Your task to perform on an android device: change alarm snooze length Image 0: 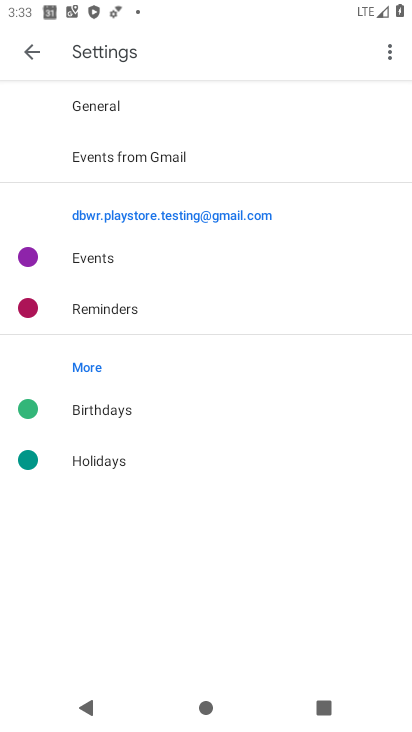
Step 0: press back button
Your task to perform on an android device: change alarm snooze length Image 1: 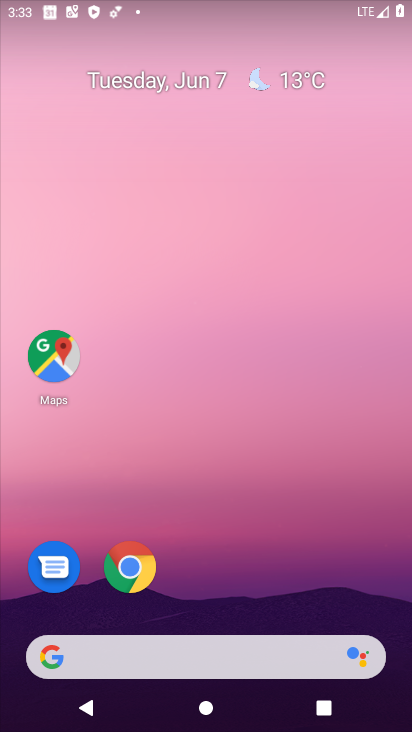
Step 1: drag from (264, 541) to (358, 63)
Your task to perform on an android device: change alarm snooze length Image 2: 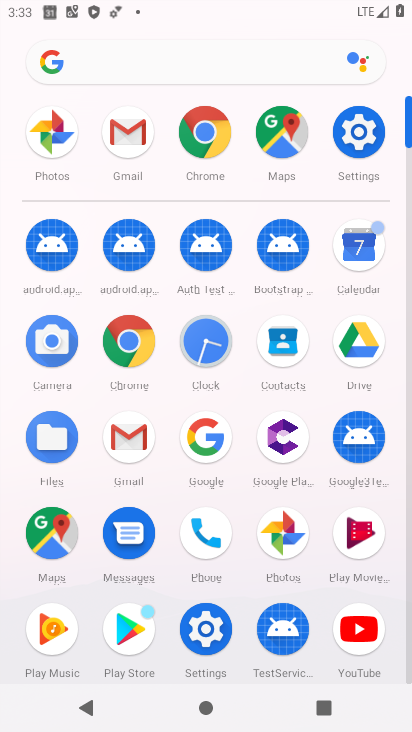
Step 2: click (193, 333)
Your task to perform on an android device: change alarm snooze length Image 3: 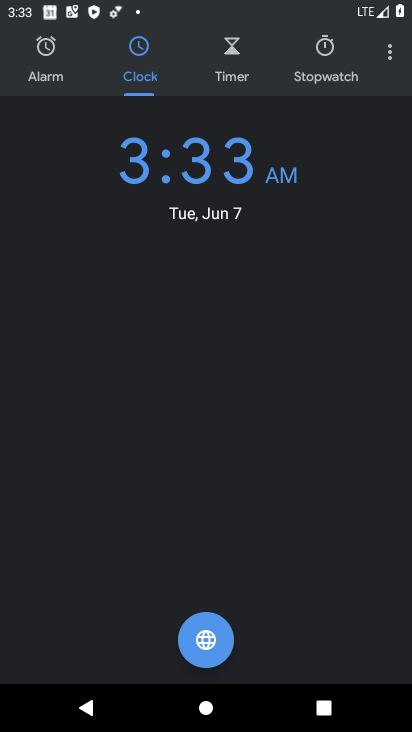
Step 3: click (394, 53)
Your task to perform on an android device: change alarm snooze length Image 4: 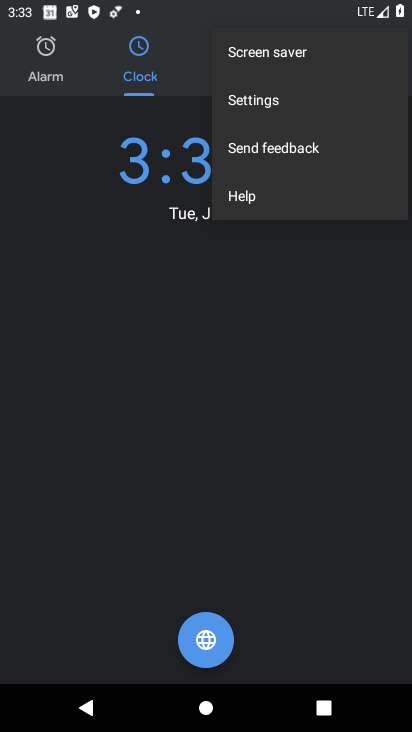
Step 4: click (264, 99)
Your task to perform on an android device: change alarm snooze length Image 5: 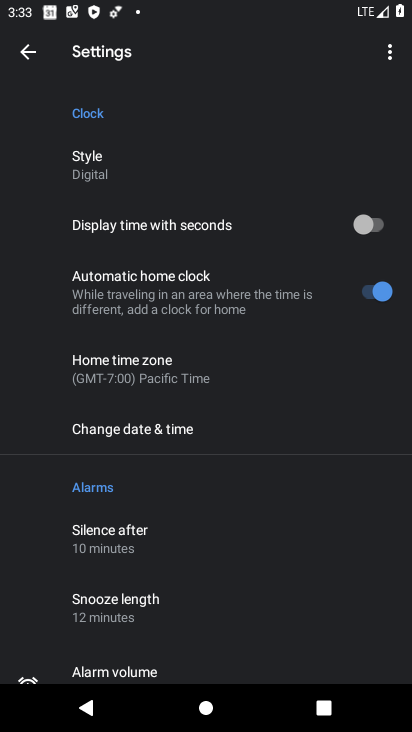
Step 5: click (162, 606)
Your task to perform on an android device: change alarm snooze length Image 6: 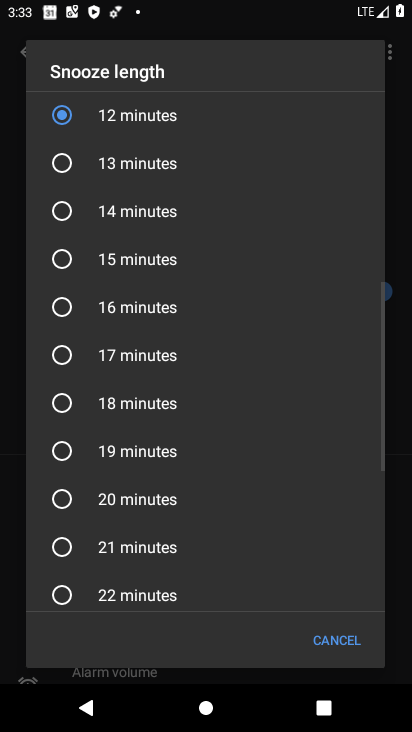
Step 6: click (58, 160)
Your task to perform on an android device: change alarm snooze length Image 7: 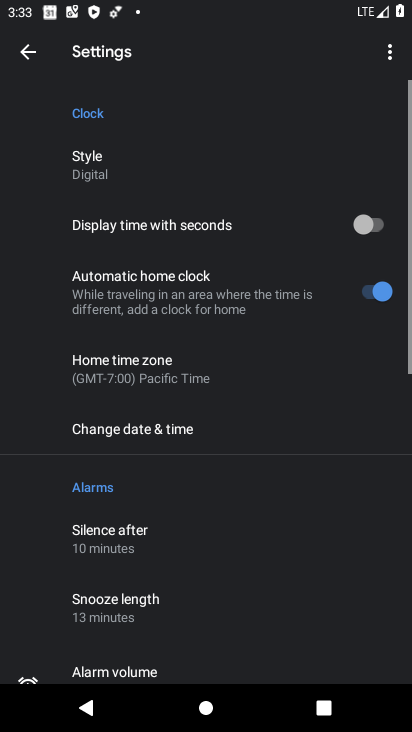
Step 7: task complete